Your task to perform on an android device: What's on my calendar today? Image 0: 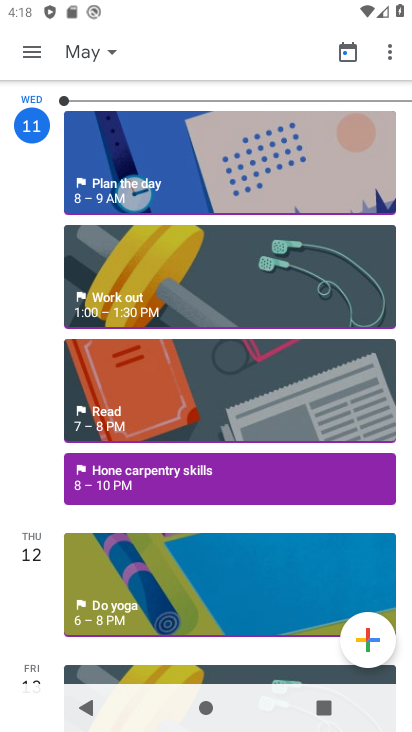
Step 0: click (106, 52)
Your task to perform on an android device: What's on my calendar today? Image 1: 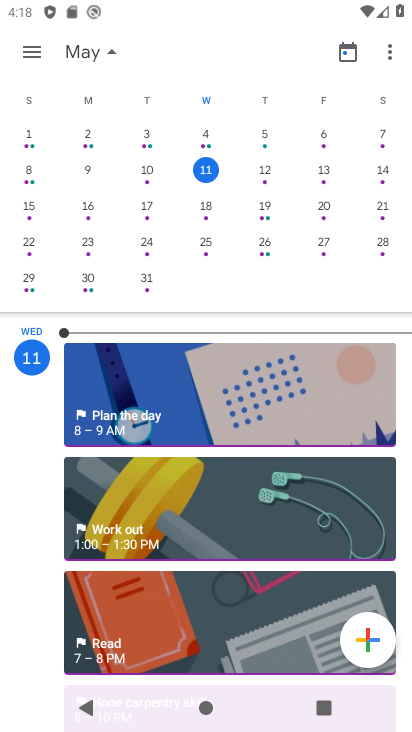
Step 1: click (148, 179)
Your task to perform on an android device: What's on my calendar today? Image 2: 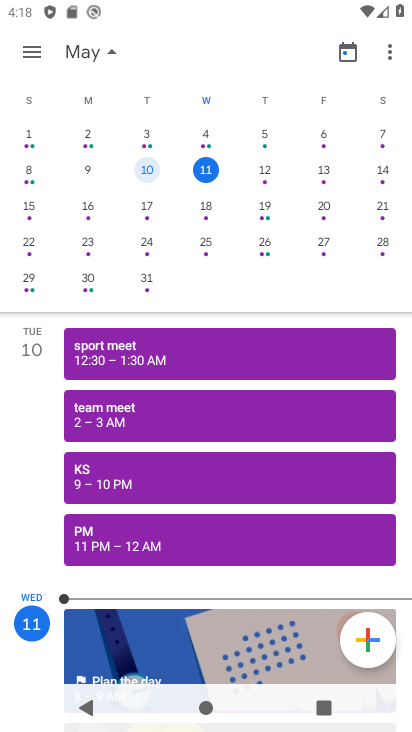
Step 2: click (213, 176)
Your task to perform on an android device: What's on my calendar today? Image 3: 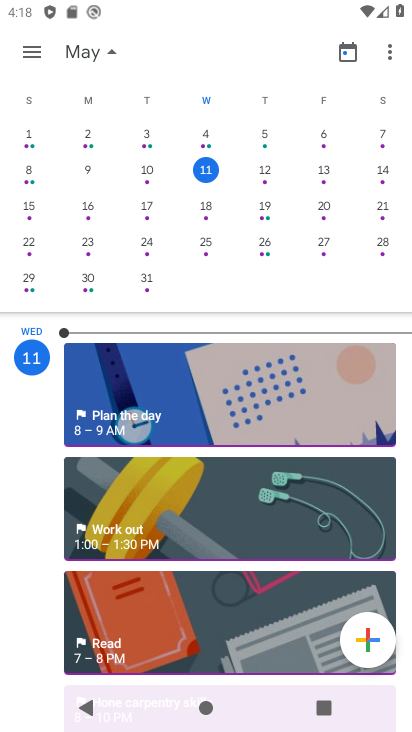
Step 3: click (213, 176)
Your task to perform on an android device: What's on my calendar today? Image 4: 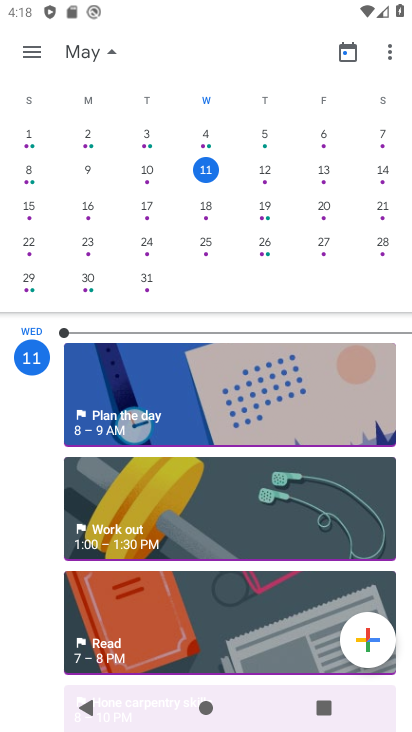
Step 4: task complete